Your task to perform on an android device: find snoozed emails in the gmail app Image 0: 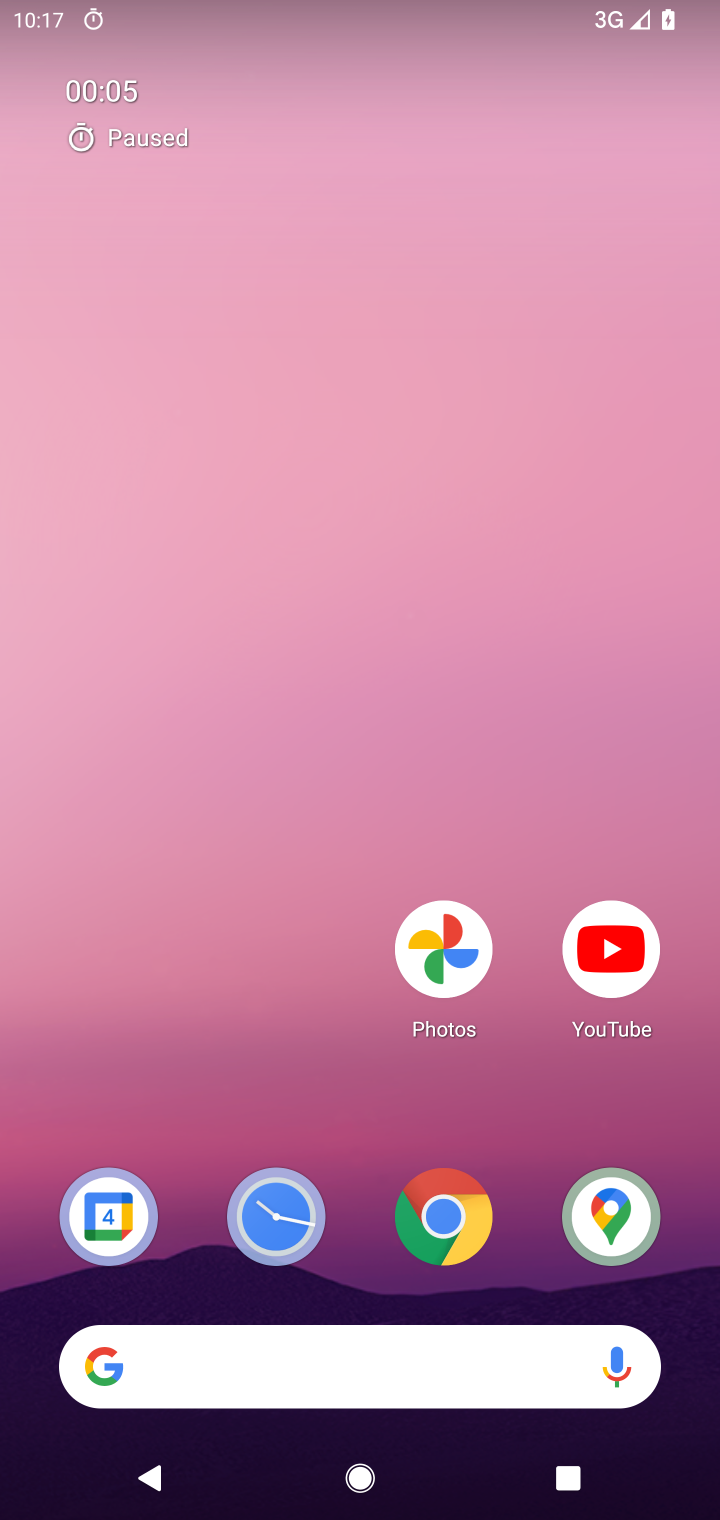
Step 0: drag from (376, 1302) to (362, 186)
Your task to perform on an android device: find snoozed emails in the gmail app Image 1: 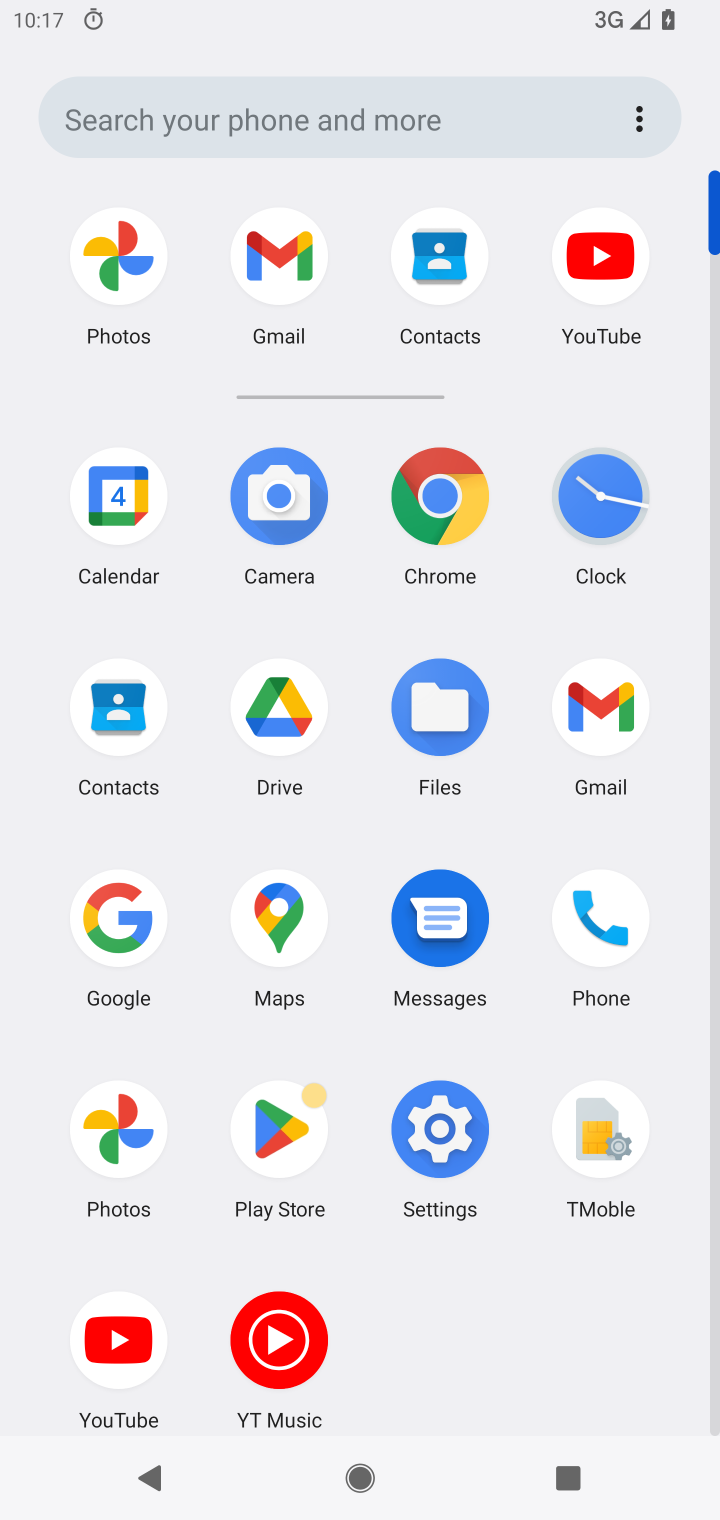
Step 1: click (608, 709)
Your task to perform on an android device: find snoozed emails in the gmail app Image 2: 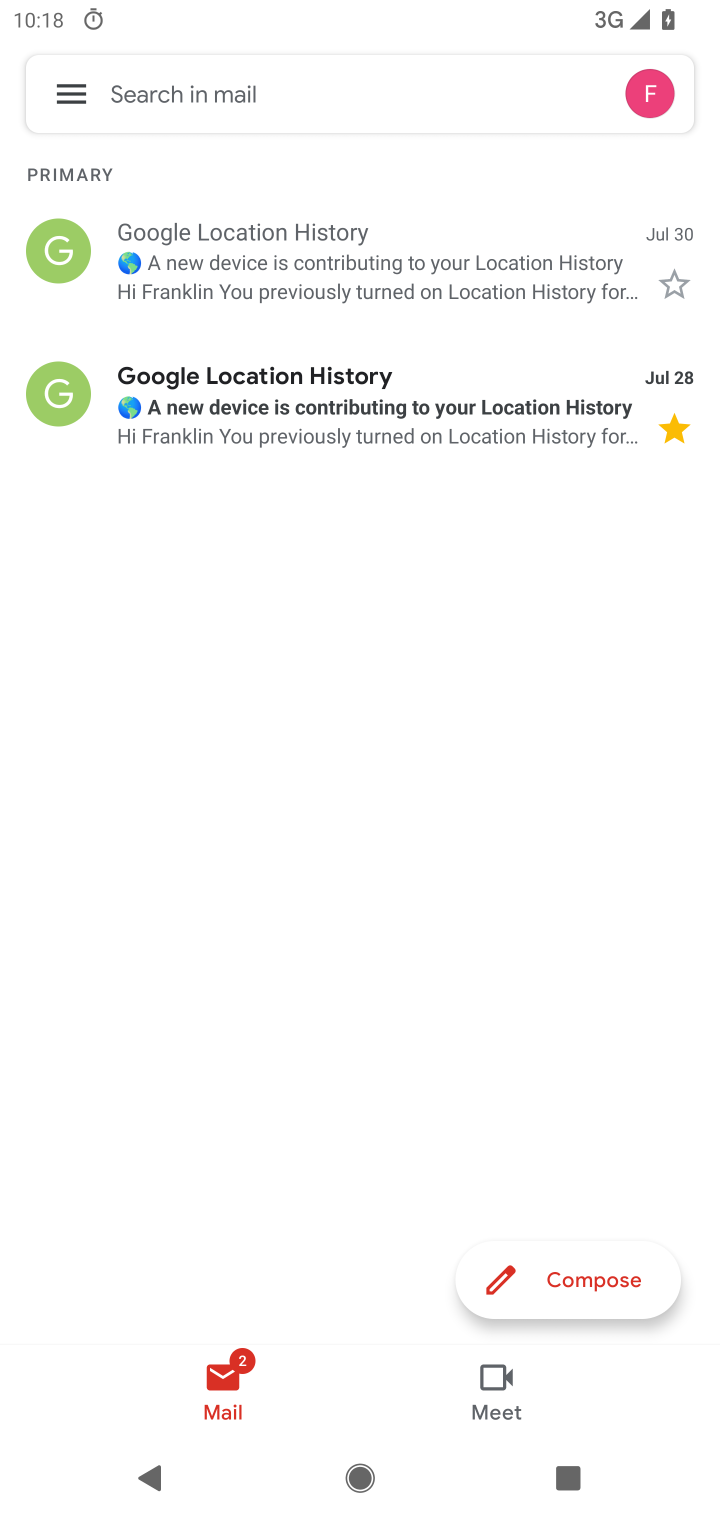
Step 2: click (62, 105)
Your task to perform on an android device: find snoozed emails in the gmail app Image 3: 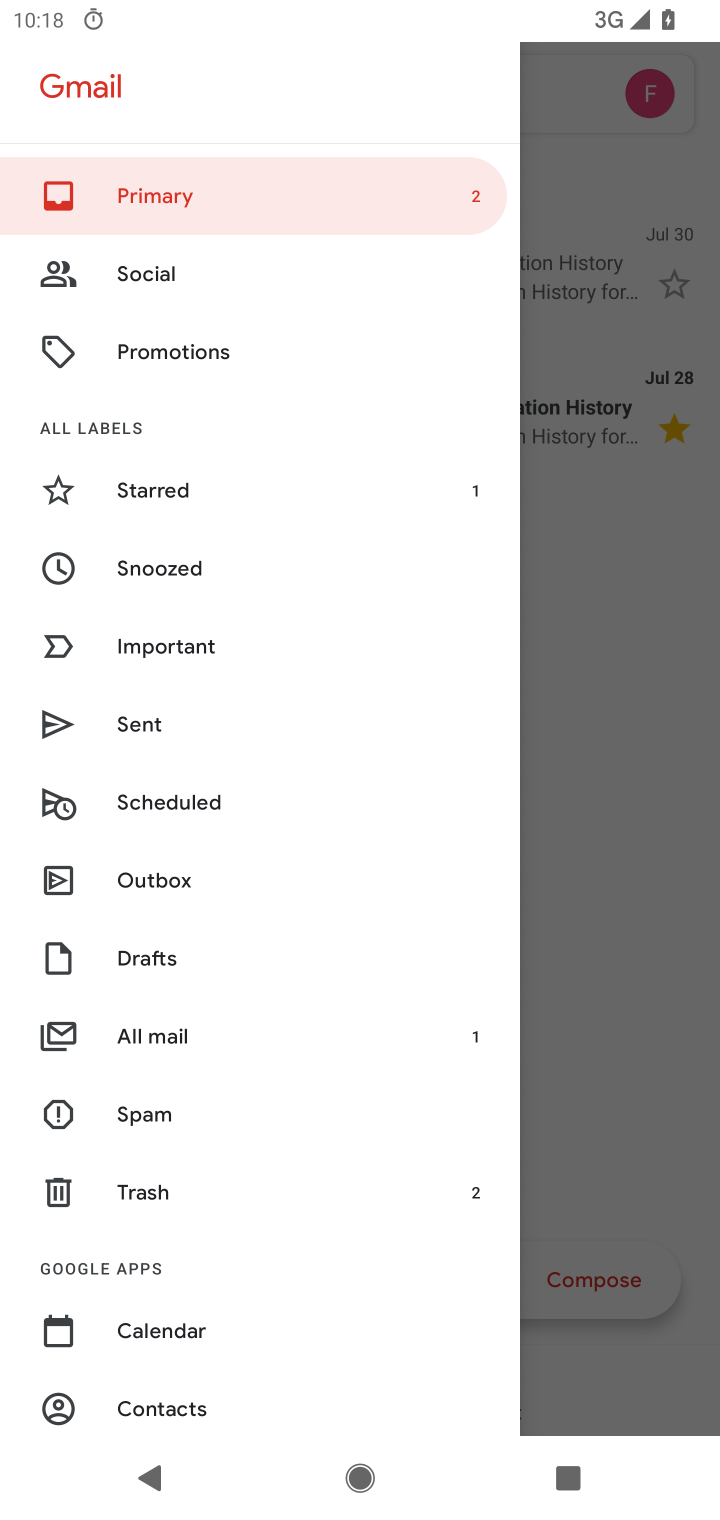
Step 3: click (161, 567)
Your task to perform on an android device: find snoozed emails in the gmail app Image 4: 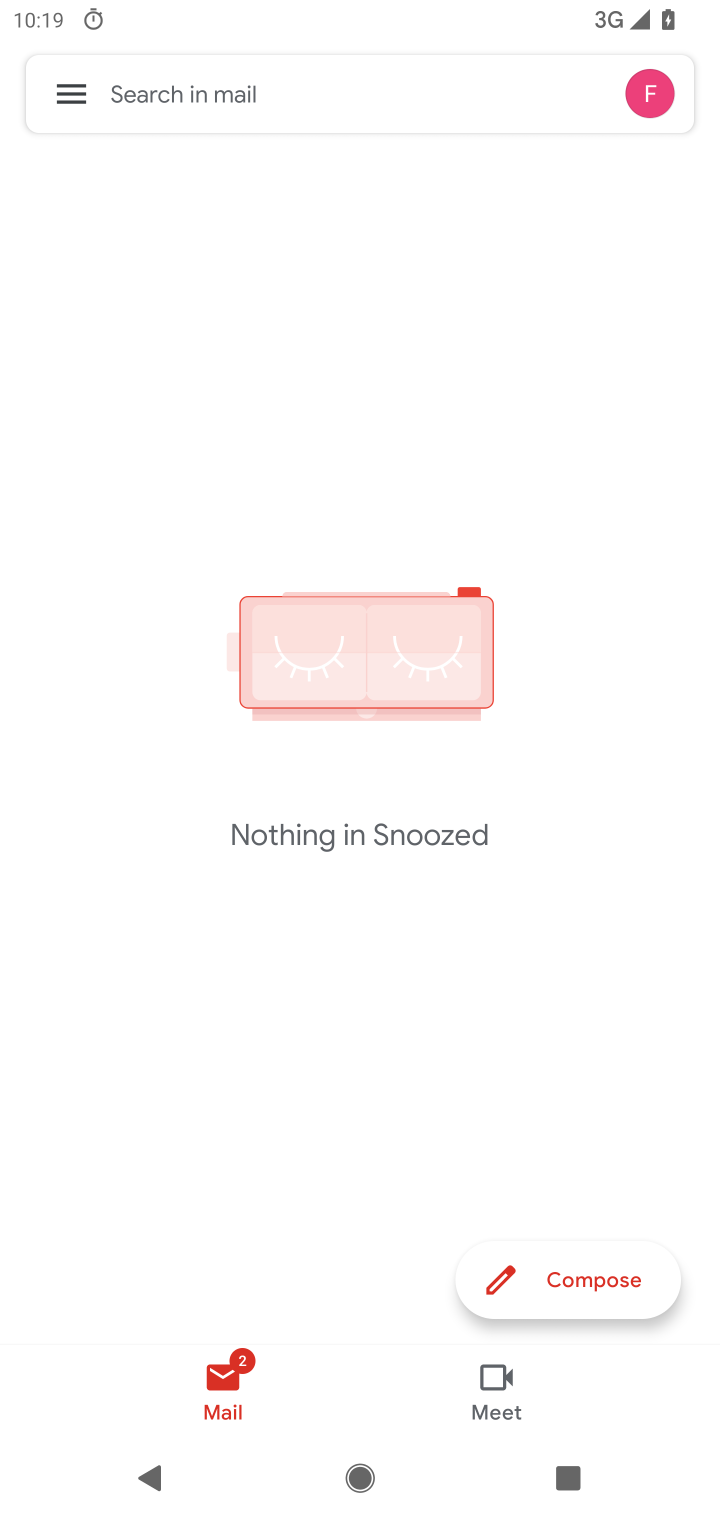
Step 4: task complete